Your task to perform on an android device: set an alarm Image 0: 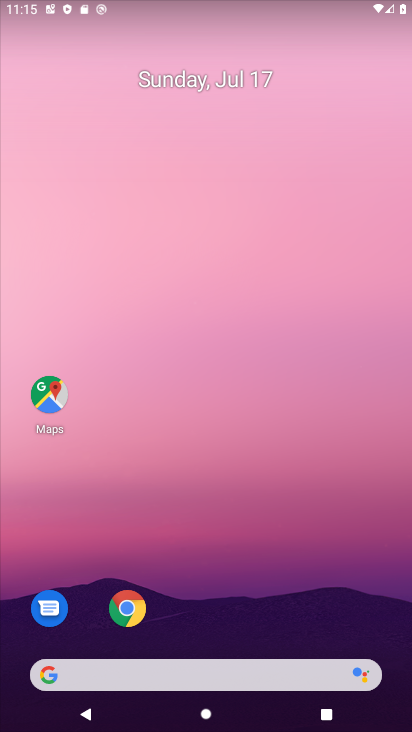
Step 0: drag from (193, 659) to (217, 177)
Your task to perform on an android device: set an alarm Image 1: 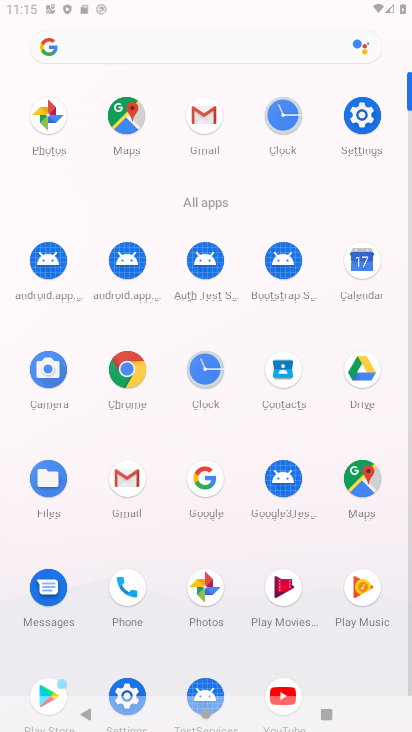
Step 1: click (203, 349)
Your task to perform on an android device: set an alarm Image 2: 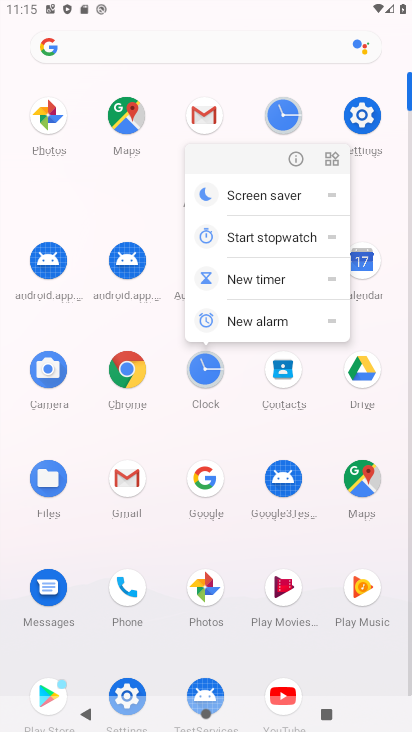
Step 2: click (218, 366)
Your task to perform on an android device: set an alarm Image 3: 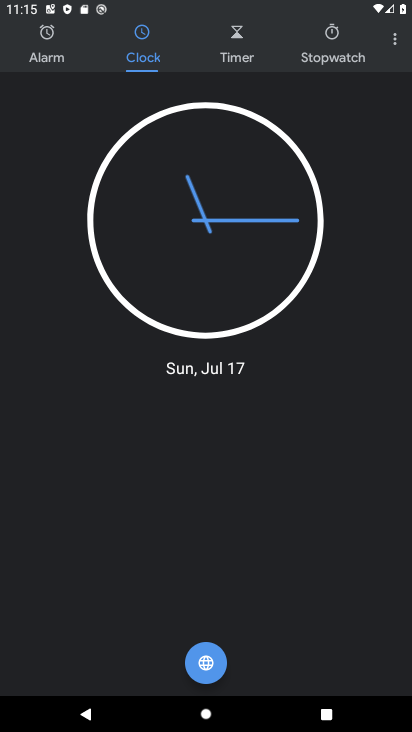
Step 3: click (61, 47)
Your task to perform on an android device: set an alarm Image 4: 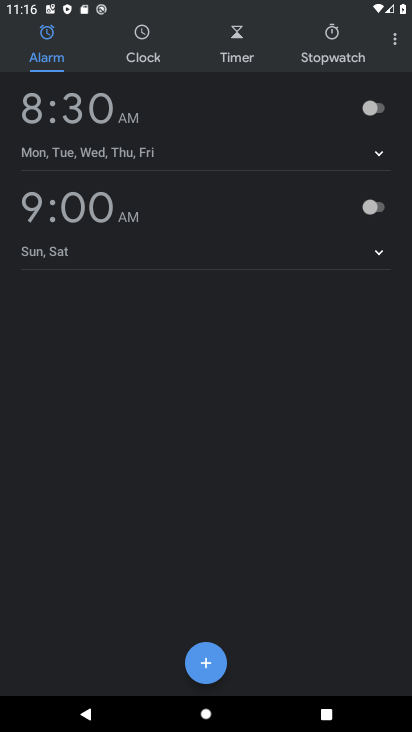
Step 4: click (198, 671)
Your task to perform on an android device: set an alarm Image 5: 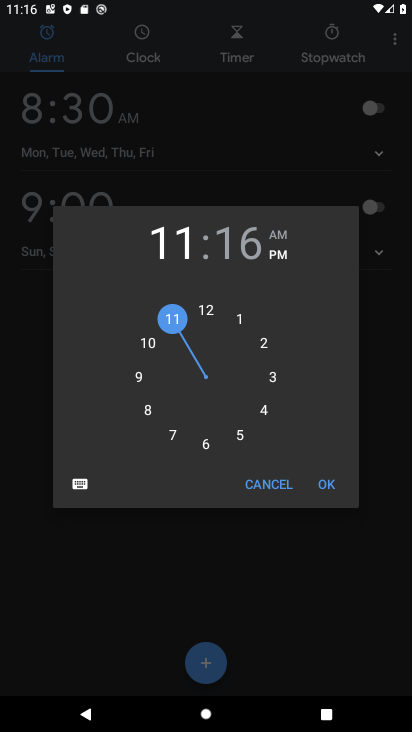
Step 5: click (325, 482)
Your task to perform on an android device: set an alarm Image 6: 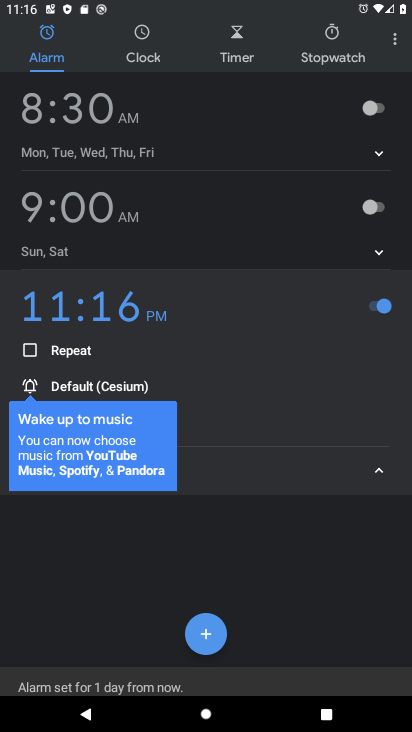
Step 6: task complete